Your task to perform on an android device: add a contact Image 0: 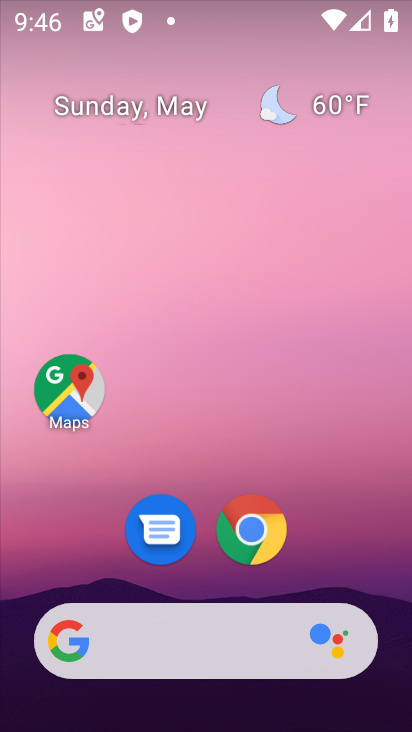
Step 0: drag from (385, 567) to (385, 204)
Your task to perform on an android device: add a contact Image 1: 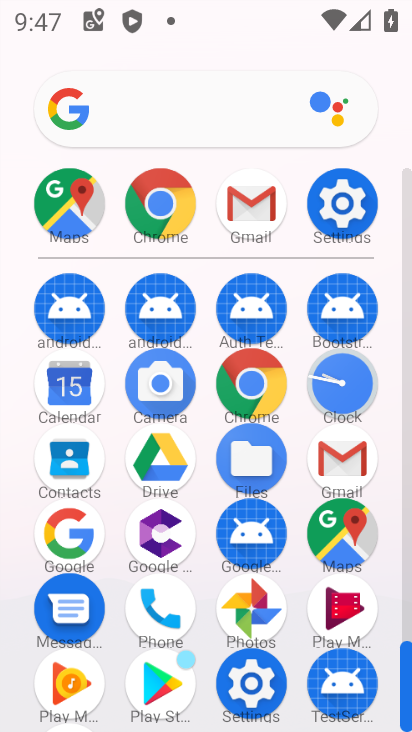
Step 1: click (75, 481)
Your task to perform on an android device: add a contact Image 2: 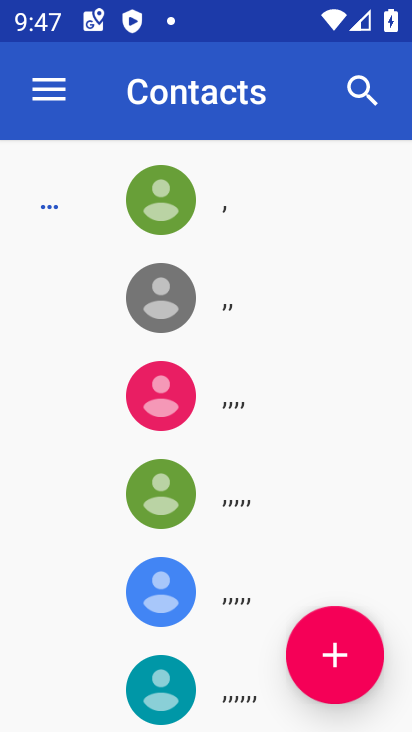
Step 2: click (333, 640)
Your task to perform on an android device: add a contact Image 3: 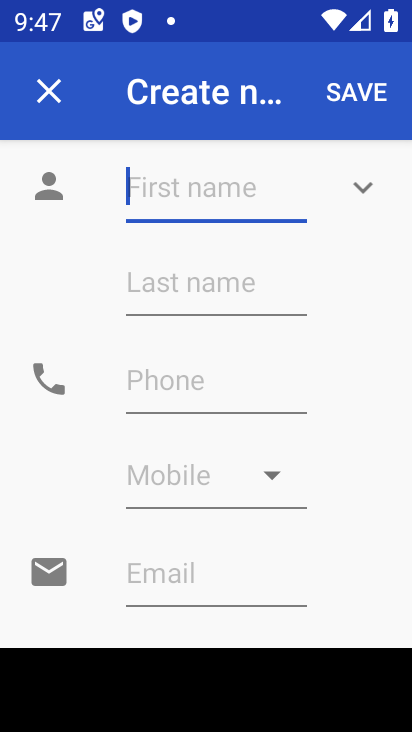
Step 3: type "luv"
Your task to perform on an android device: add a contact Image 4: 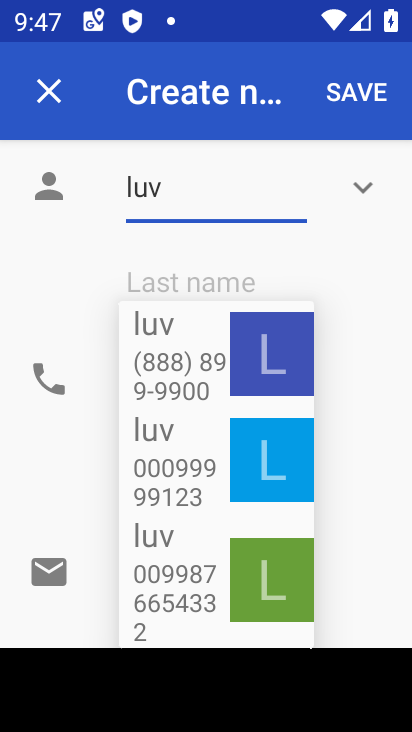
Step 4: click (386, 442)
Your task to perform on an android device: add a contact Image 5: 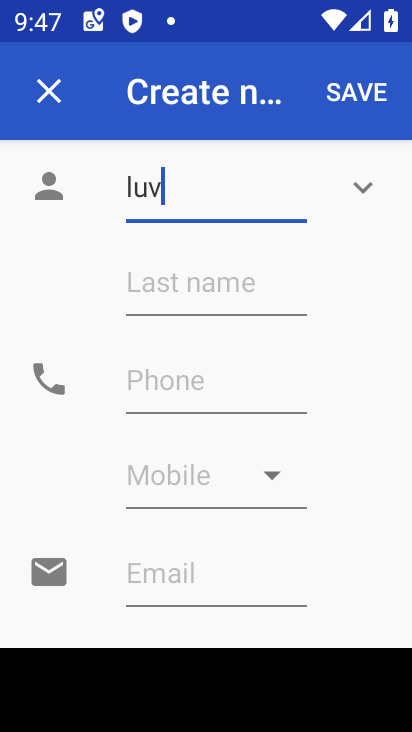
Step 5: click (172, 389)
Your task to perform on an android device: add a contact Image 6: 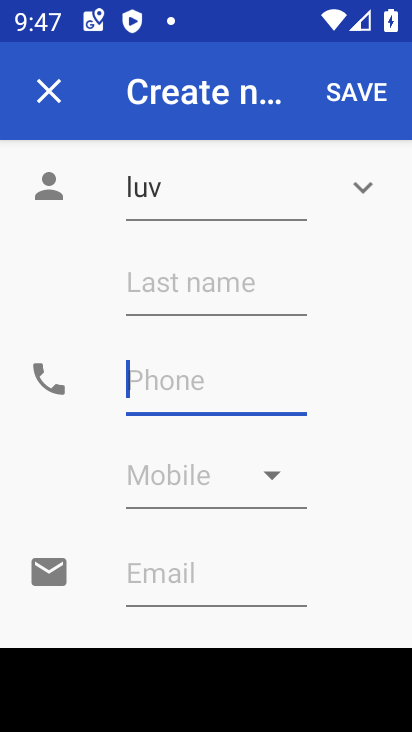
Step 6: type "123456788"
Your task to perform on an android device: add a contact Image 7: 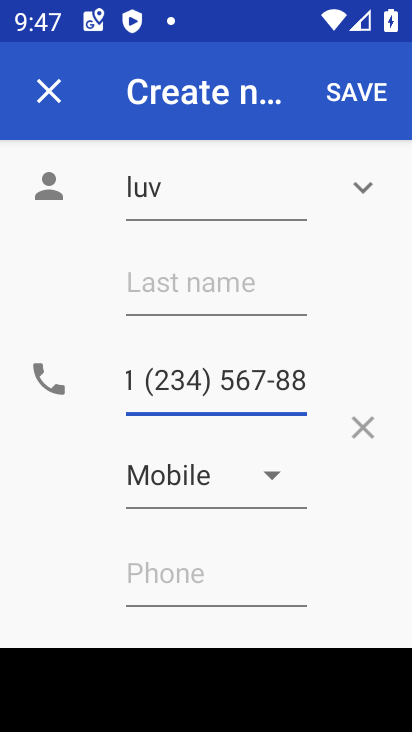
Step 7: click (354, 101)
Your task to perform on an android device: add a contact Image 8: 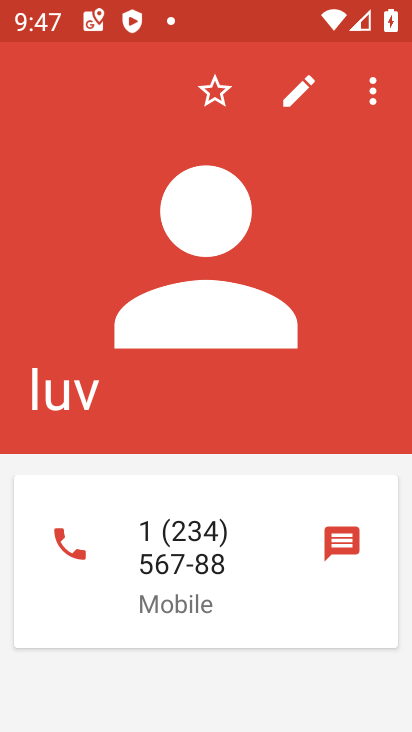
Step 8: task complete